Your task to perform on an android device: delete location history Image 0: 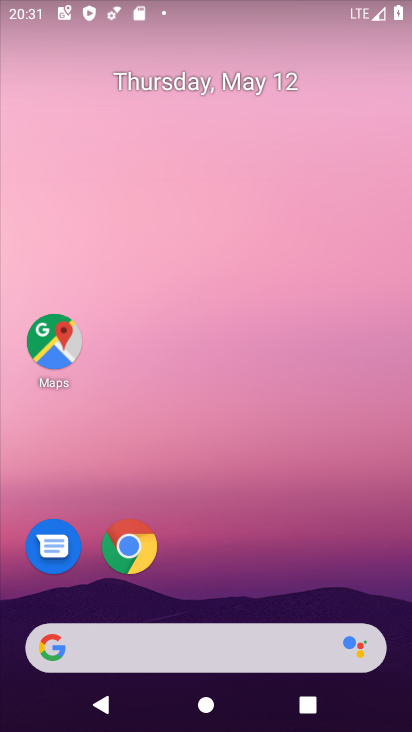
Step 0: click (51, 336)
Your task to perform on an android device: delete location history Image 1: 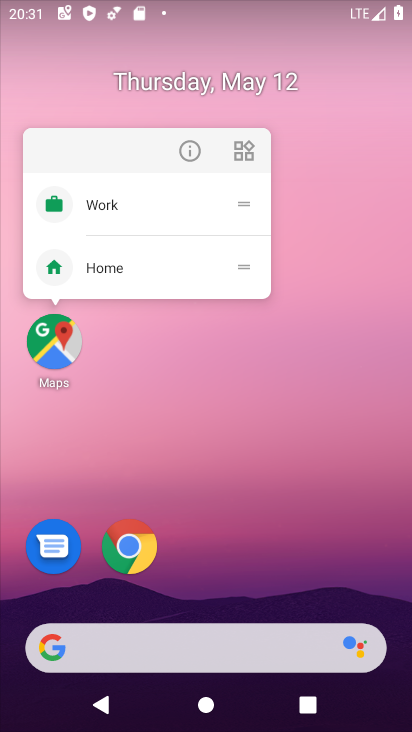
Step 1: click (49, 349)
Your task to perform on an android device: delete location history Image 2: 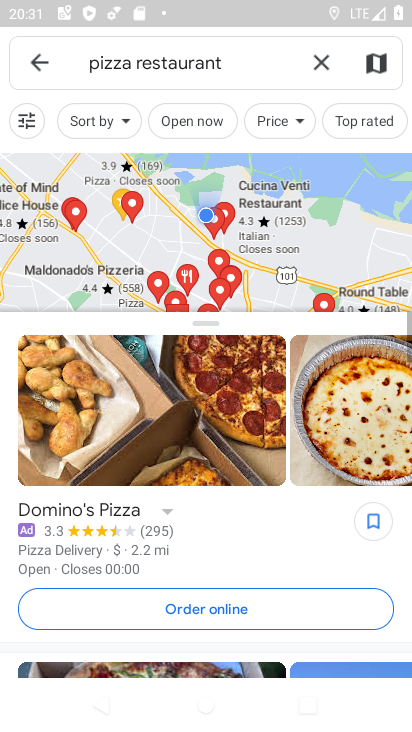
Step 2: click (43, 61)
Your task to perform on an android device: delete location history Image 3: 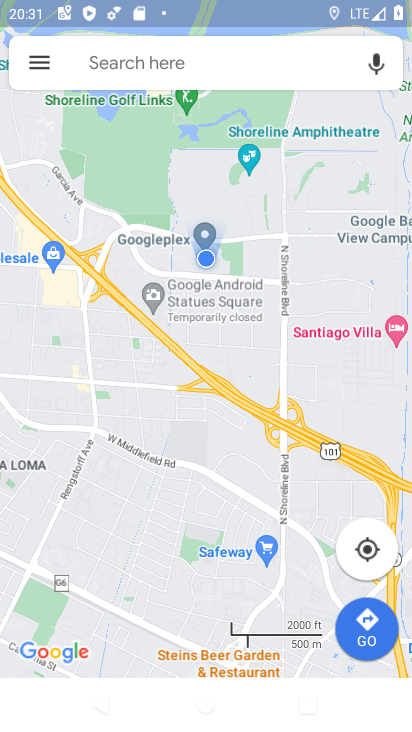
Step 3: click (45, 60)
Your task to perform on an android device: delete location history Image 4: 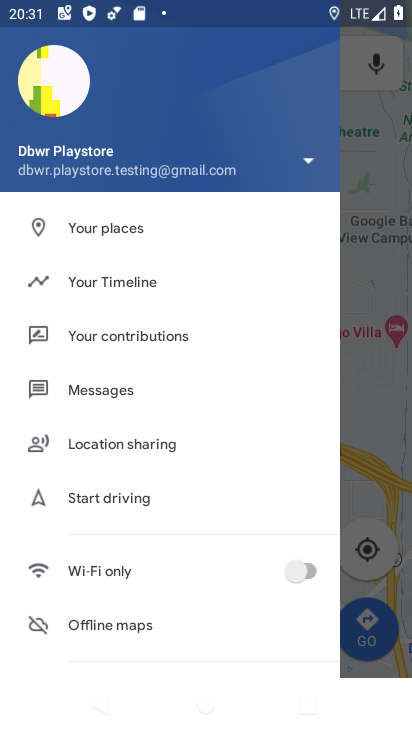
Step 4: click (164, 284)
Your task to perform on an android device: delete location history Image 5: 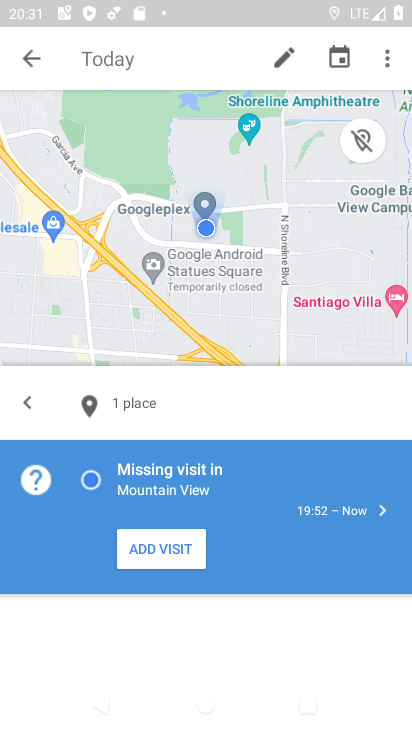
Step 5: click (382, 53)
Your task to perform on an android device: delete location history Image 6: 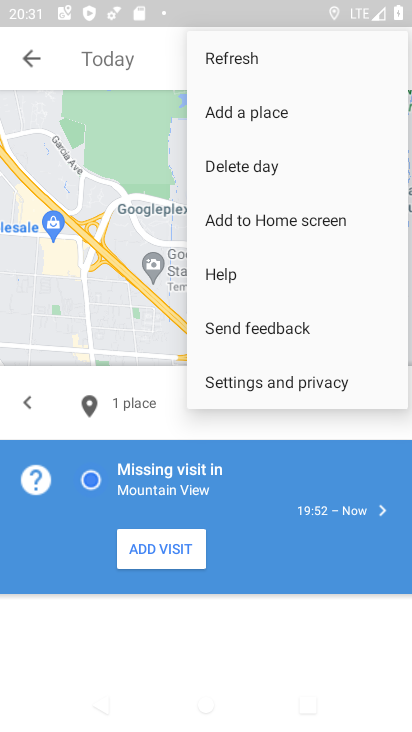
Step 6: click (227, 392)
Your task to perform on an android device: delete location history Image 7: 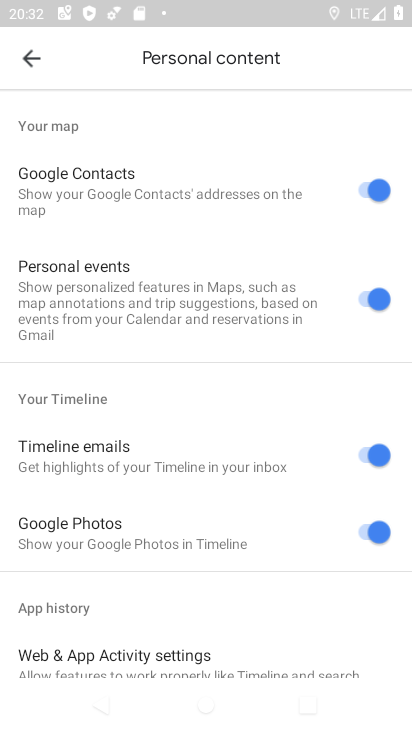
Step 7: drag from (213, 408) to (258, 106)
Your task to perform on an android device: delete location history Image 8: 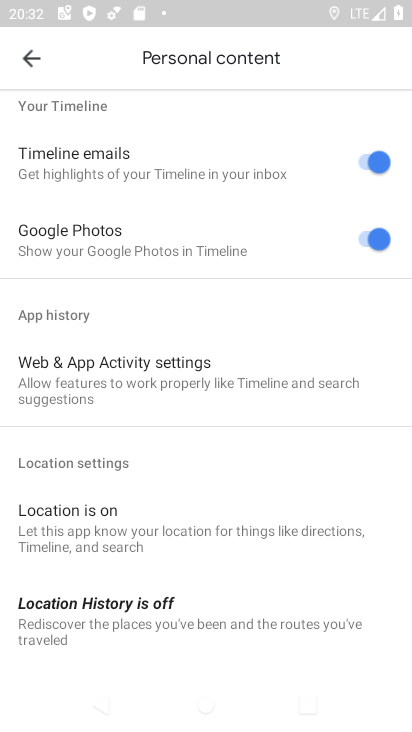
Step 8: drag from (205, 565) to (279, 132)
Your task to perform on an android device: delete location history Image 9: 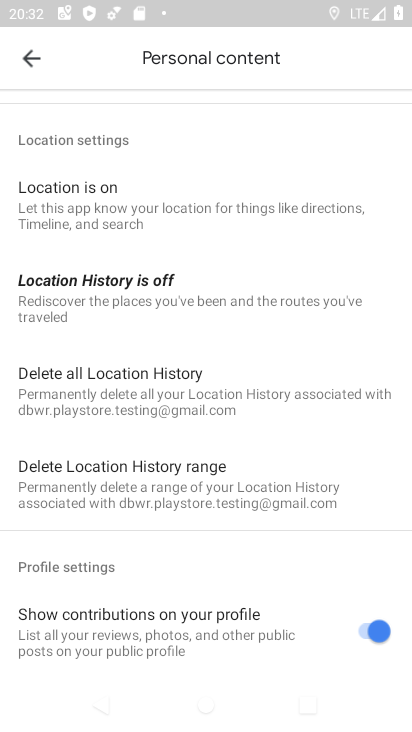
Step 9: click (111, 394)
Your task to perform on an android device: delete location history Image 10: 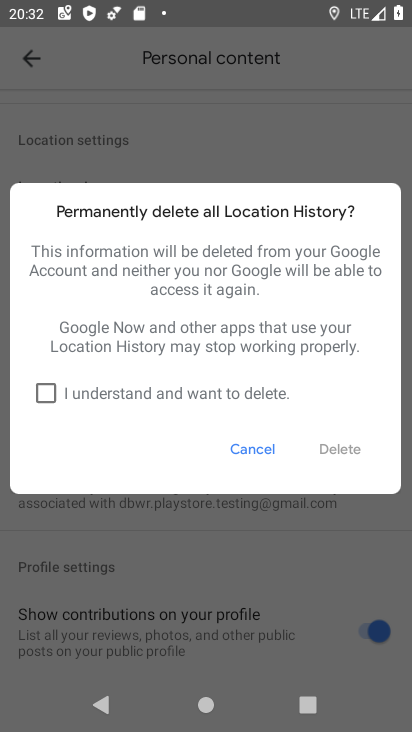
Step 10: click (47, 378)
Your task to perform on an android device: delete location history Image 11: 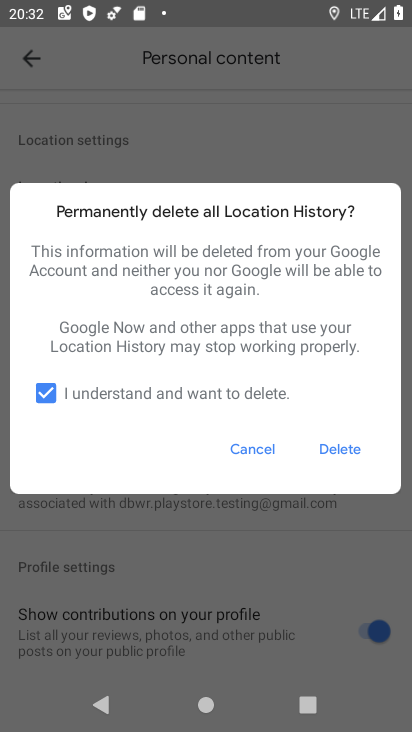
Step 11: click (329, 454)
Your task to perform on an android device: delete location history Image 12: 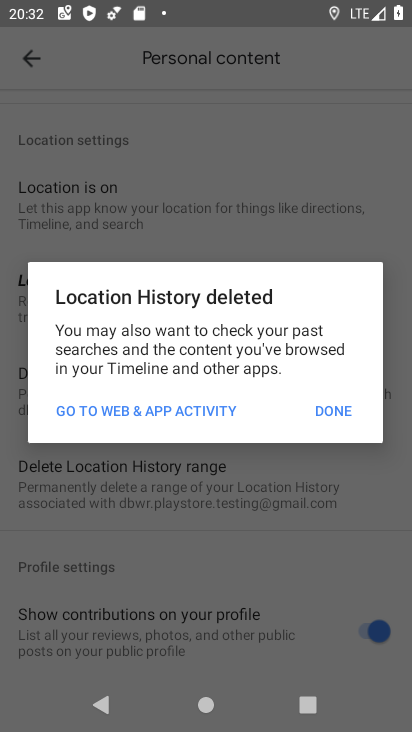
Step 12: click (312, 417)
Your task to perform on an android device: delete location history Image 13: 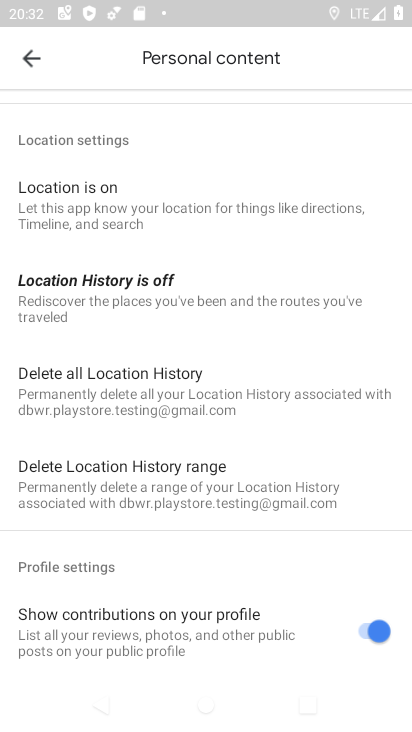
Step 13: task complete